Your task to perform on an android device: Open the calendar and show me this week's events Image 0: 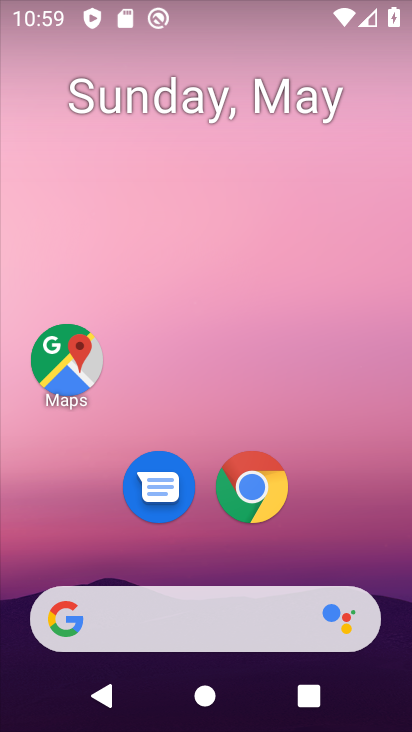
Step 0: drag from (309, 519) to (291, 27)
Your task to perform on an android device: Open the calendar and show me this week's events Image 1: 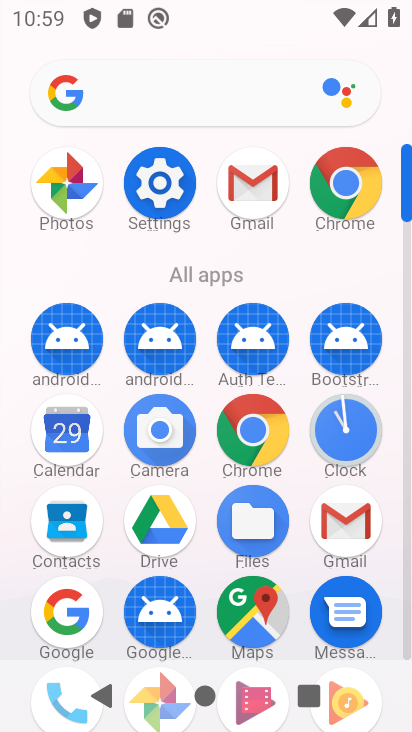
Step 1: click (65, 439)
Your task to perform on an android device: Open the calendar and show me this week's events Image 2: 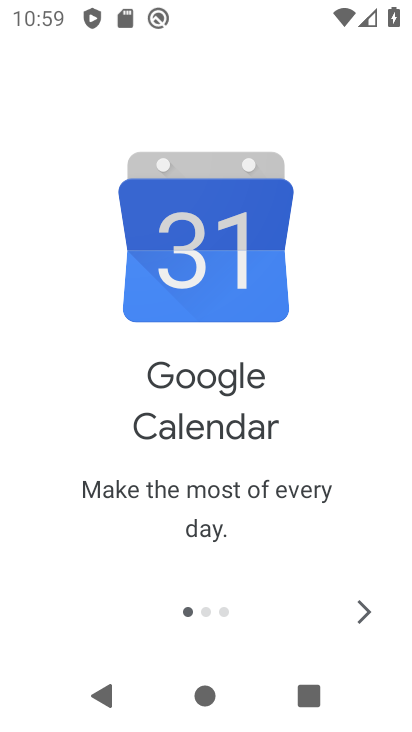
Step 2: click (360, 610)
Your task to perform on an android device: Open the calendar and show me this week's events Image 3: 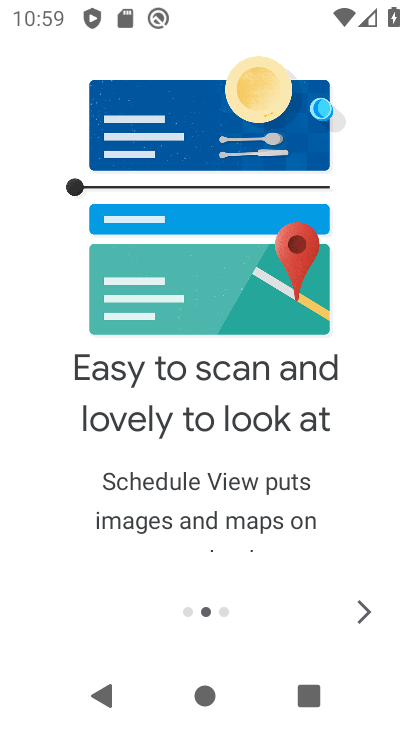
Step 3: click (360, 610)
Your task to perform on an android device: Open the calendar and show me this week's events Image 4: 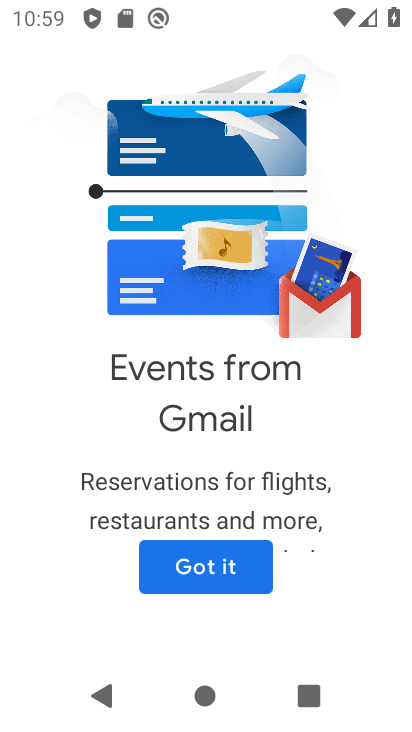
Step 4: click (222, 565)
Your task to perform on an android device: Open the calendar and show me this week's events Image 5: 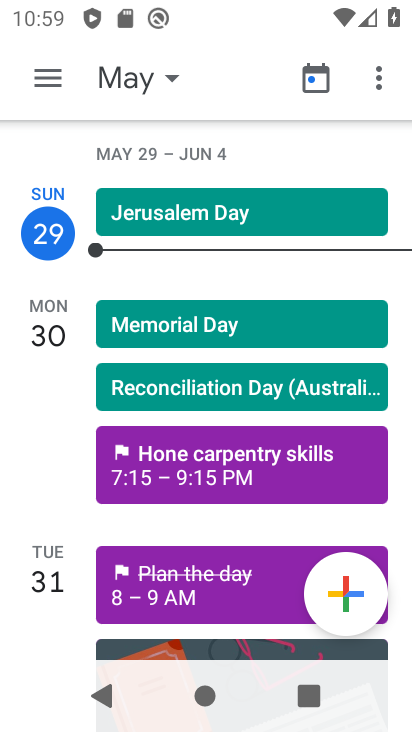
Step 5: click (159, 75)
Your task to perform on an android device: Open the calendar and show me this week's events Image 6: 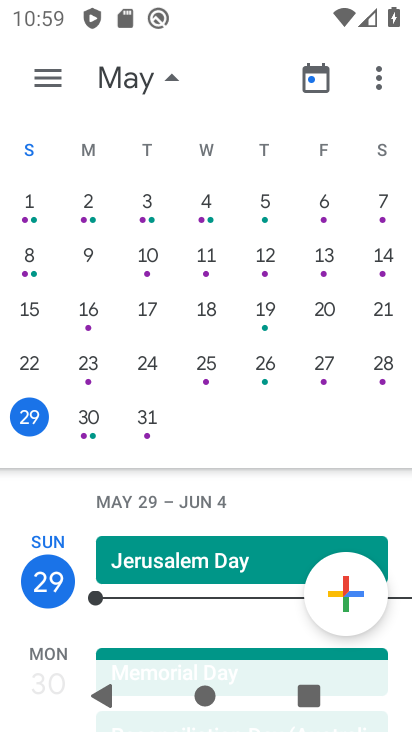
Step 6: click (32, 422)
Your task to perform on an android device: Open the calendar and show me this week's events Image 7: 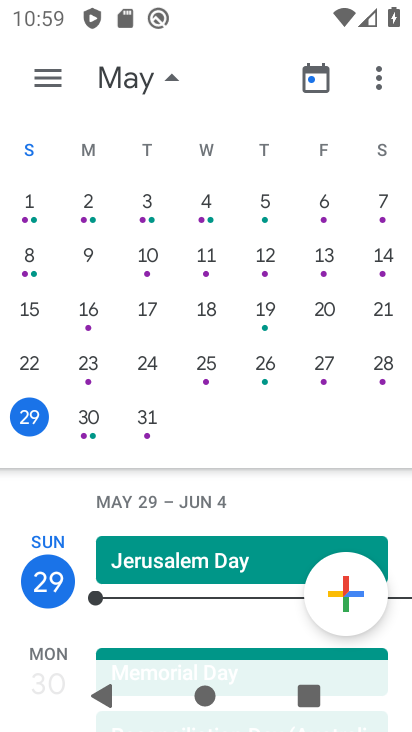
Step 7: task complete